Your task to perform on an android device: turn off javascript in the chrome app Image 0: 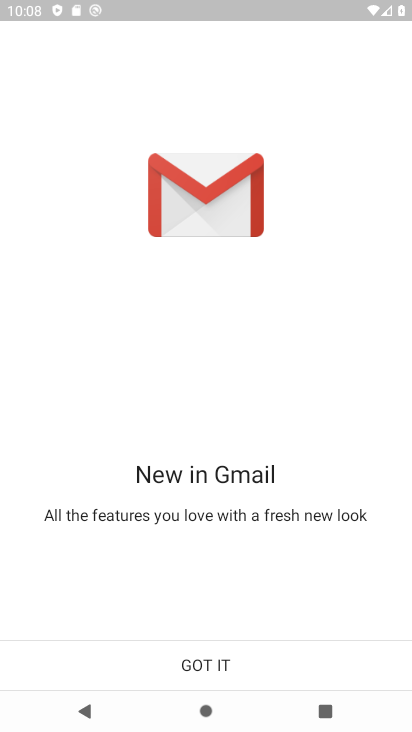
Step 0: press home button
Your task to perform on an android device: turn off javascript in the chrome app Image 1: 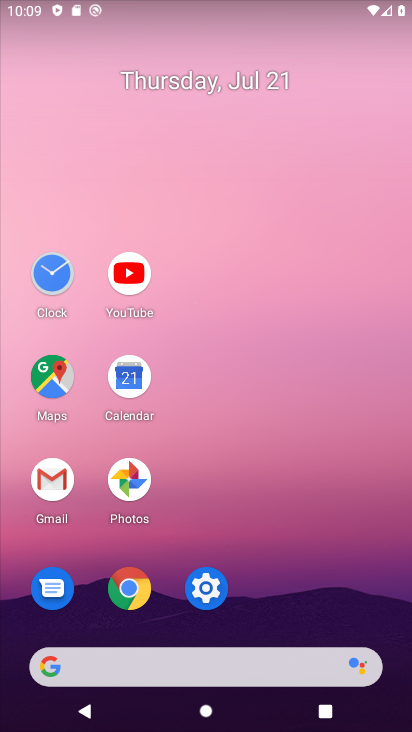
Step 1: click (131, 590)
Your task to perform on an android device: turn off javascript in the chrome app Image 2: 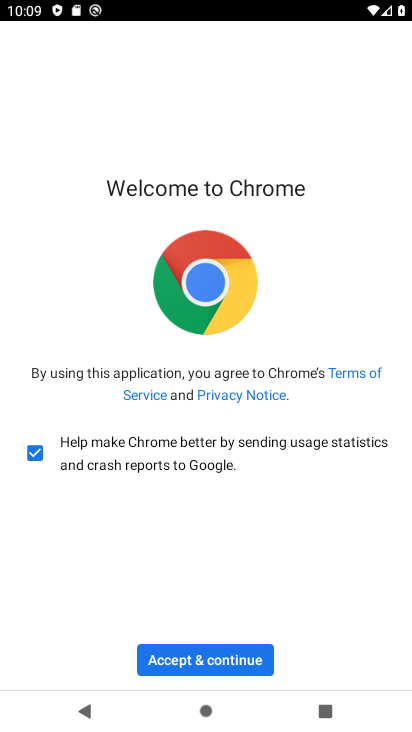
Step 2: click (187, 654)
Your task to perform on an android device: turn off javascript in the chrome app Image 3: 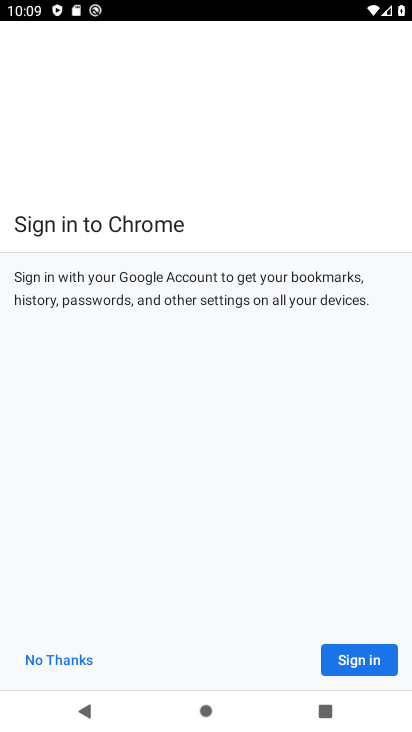
Step 3: click (57, 664)
Your task to perform on an android device: turn off javascript in the chrome app Image 4: 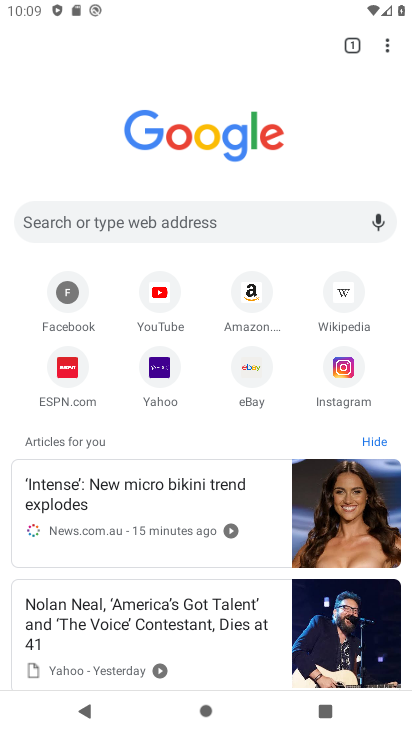
Step 4: click (388, 45)
Your task to perform on an android device: turn off javascript in the chrome app Image 5: 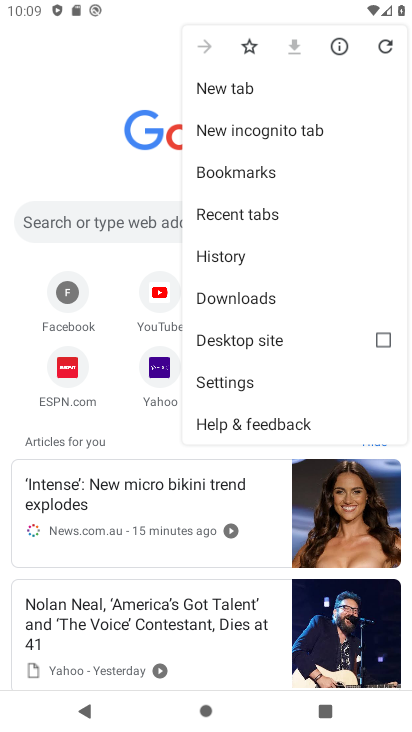
Step 5: click (231, 383)
Your task to perform on an android device: turn off javascript in the chrome app Image 6: 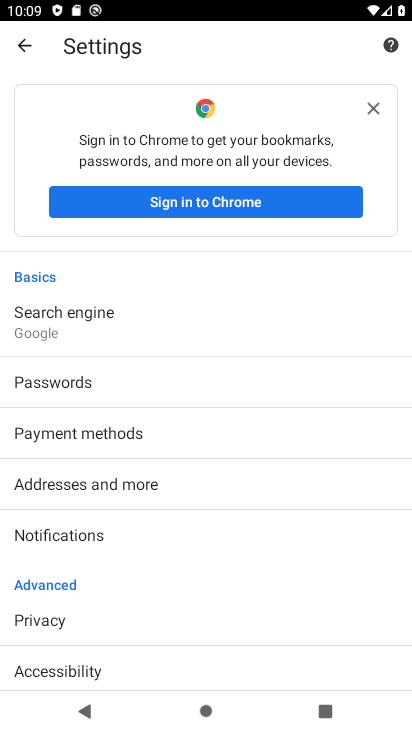
Step 6: drag from (169, 626) to (179, 418)
Your task to perform on an android device: turn off javascript in the chrome app Image 7: 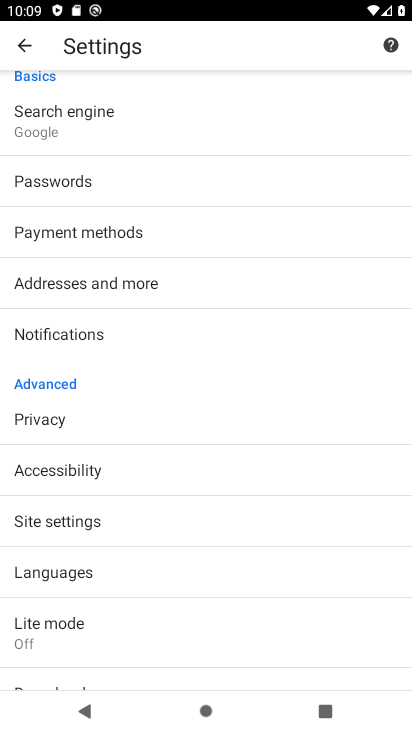
Step 7: click (73, 517)
Your task to perform on an android device: turn off javascript in the chrome app Image 8: 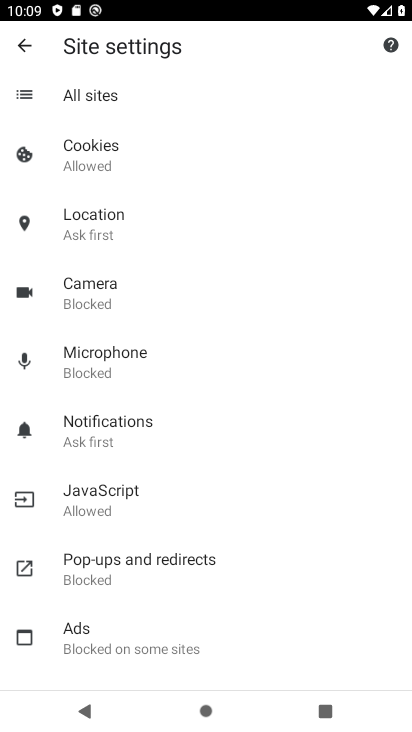
Step 8: click (87, 487)
Your task to perform on an android device: turn off javascript in the chrome app Image 9: 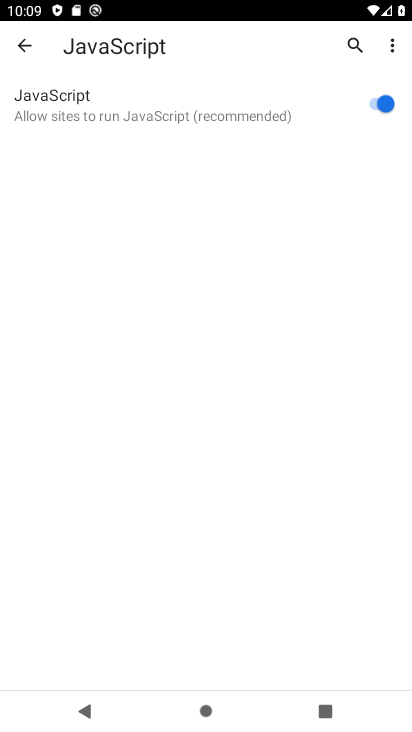
Step 9: click (383, 100)
Your task to perform on an android device: turn off javascript in the chrome app Image 10: 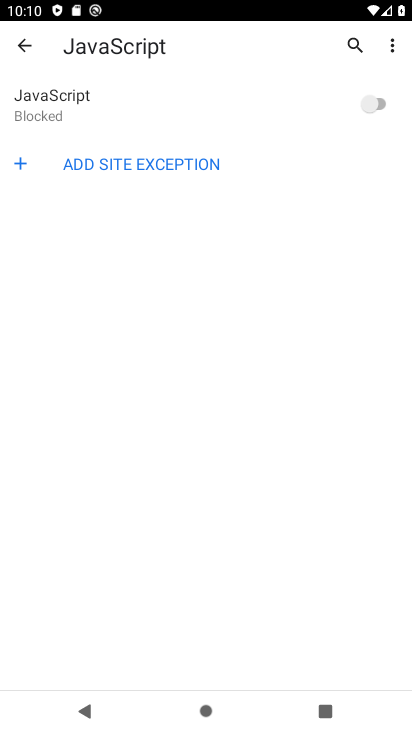
Step 10: task complete